Your task to perform on an android device: Is it going to rain today? Image 0: 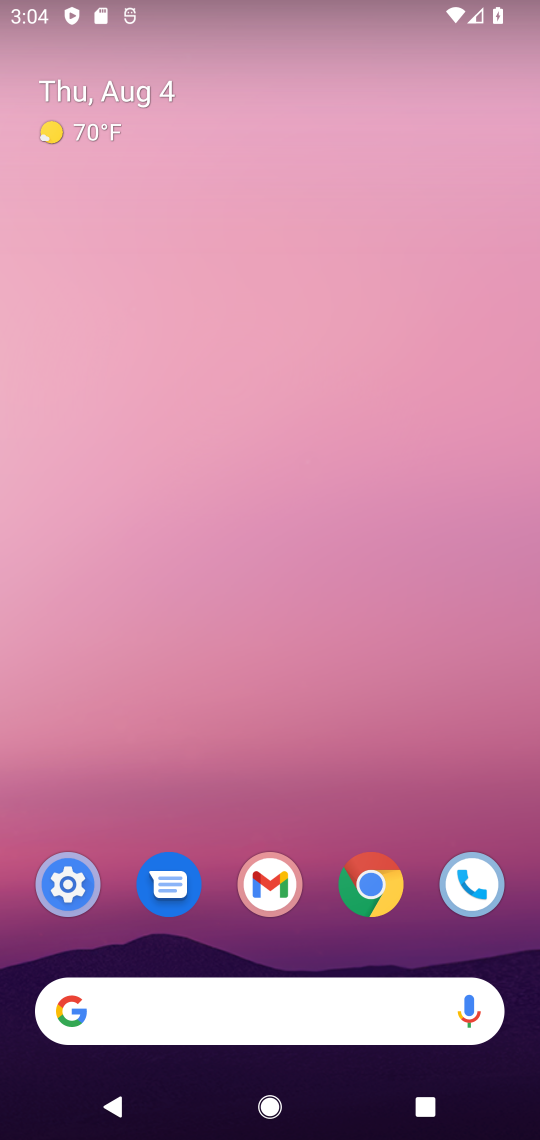
Step 0: drag from (242, 927) to (248, 172)
Your task to perform on an android device: Is it going to rain today? Image 1: 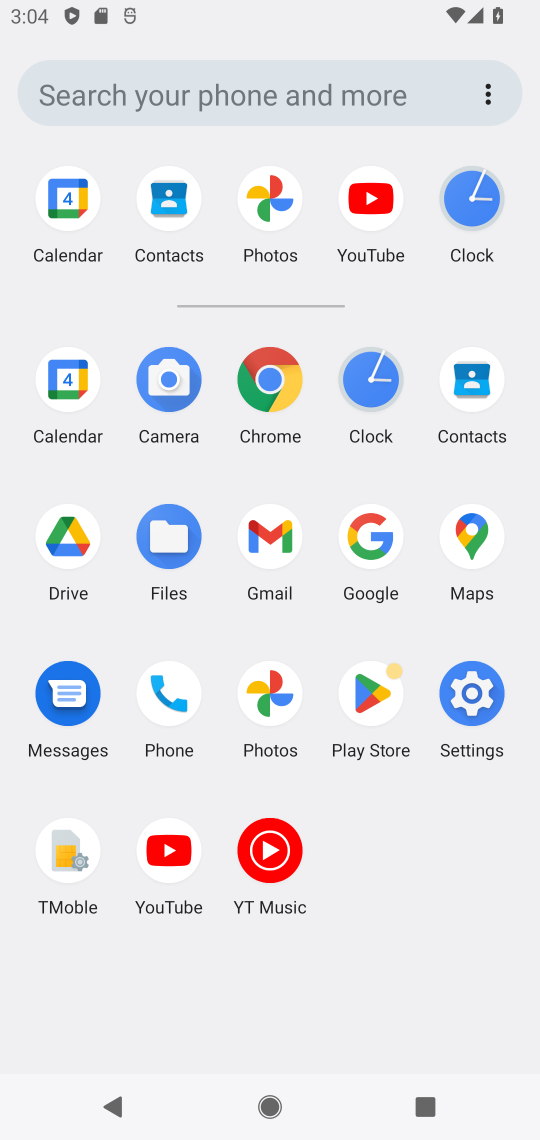
Step 1: click (262, 390)
Your task to perform on an android device: Is it going to rain today? Image 2: 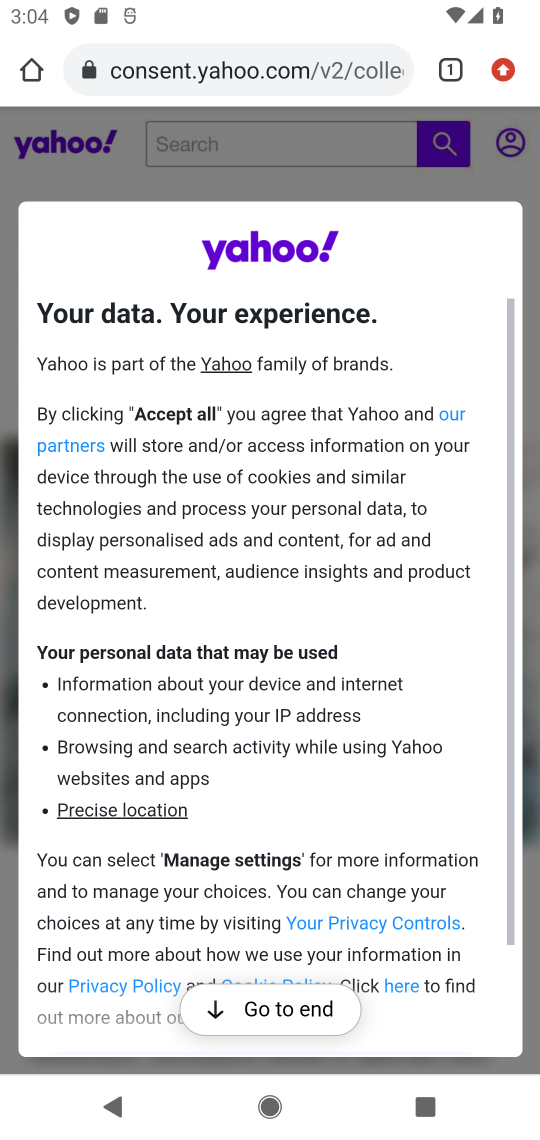
Step 2: click (519, 63)
Your task to perform on an android device: Is it going to rain today? Image 3: 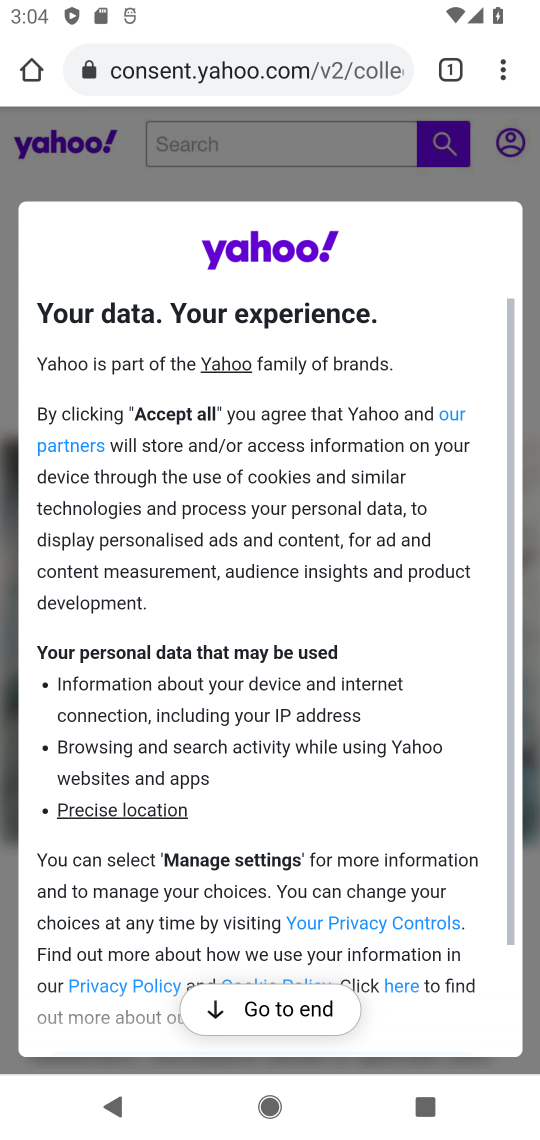
Step 3: click (497, 58)
Your task to perform on an android device: Is it going to rain today? Image 4: 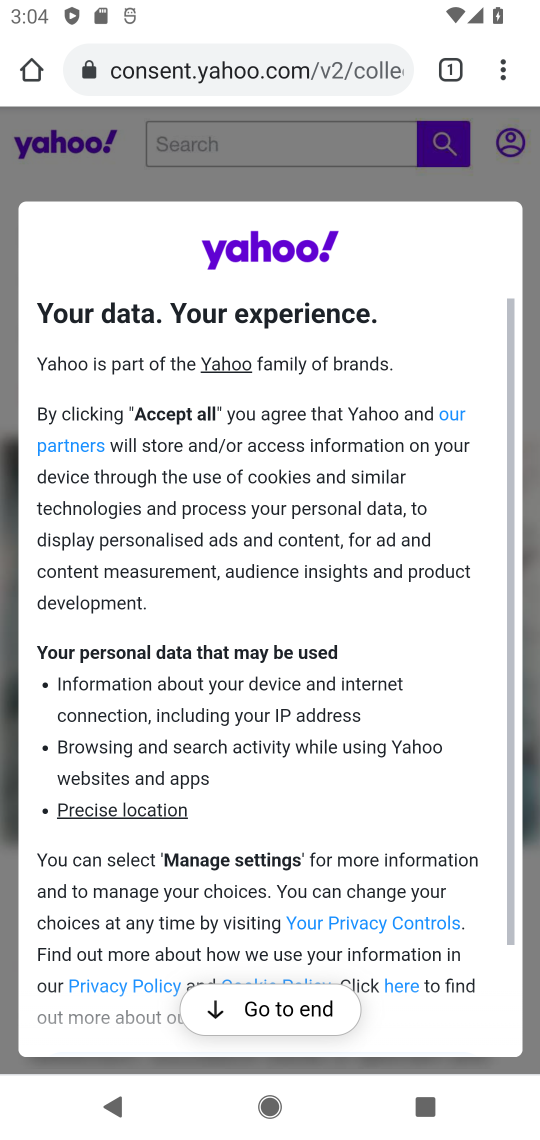
Step 4: click (497, 58)
Your task to perform on an android device: Is it going to rain today? Image 5: 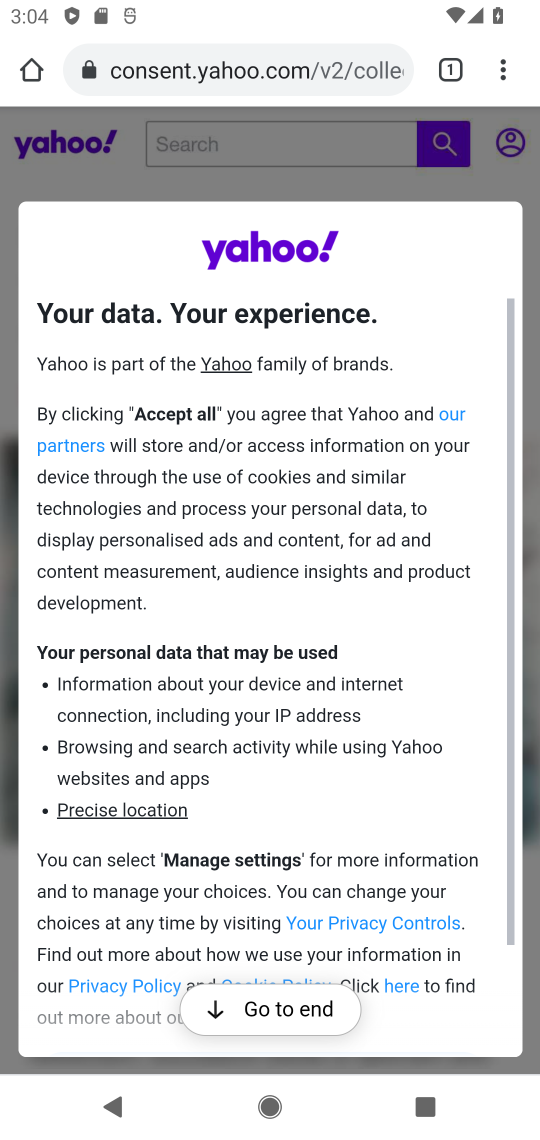
Step 5: click (494, 69)
Your task to perform on an android device: Is it going to rain today? Image 6: 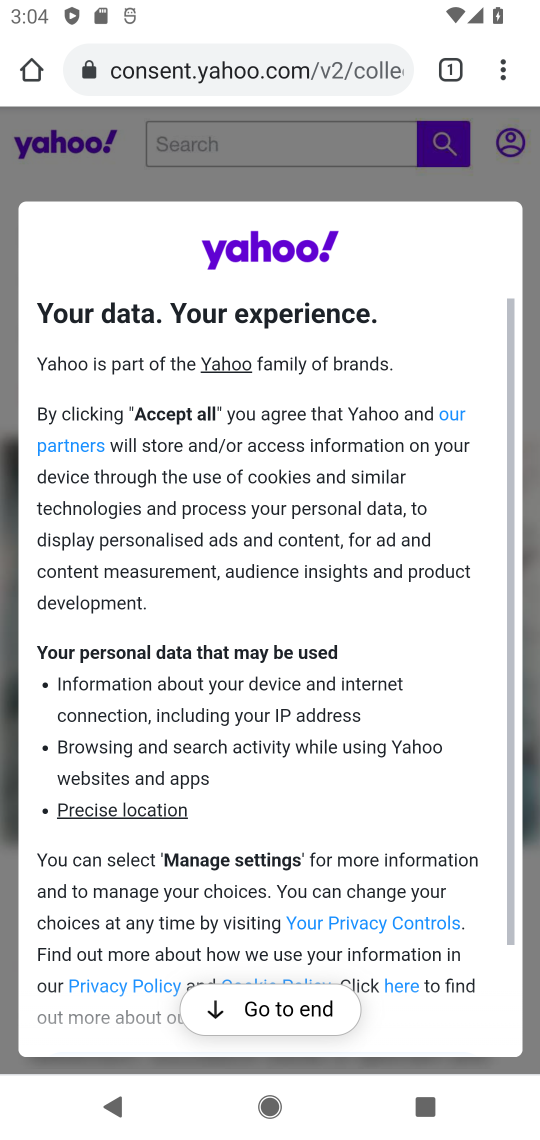
Step 6: click (502, 72)
Your task to perform on an android device: Is it going to rain today? Image 7: 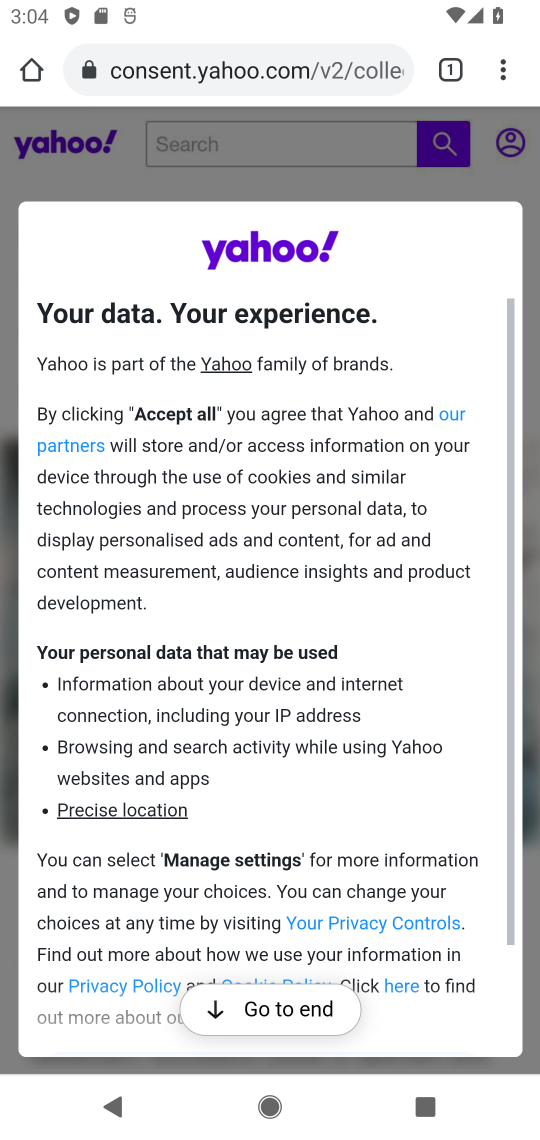
Step 7: click (502, 72)
Your task to perform on an android device: Is it going to rain today? Image 8: 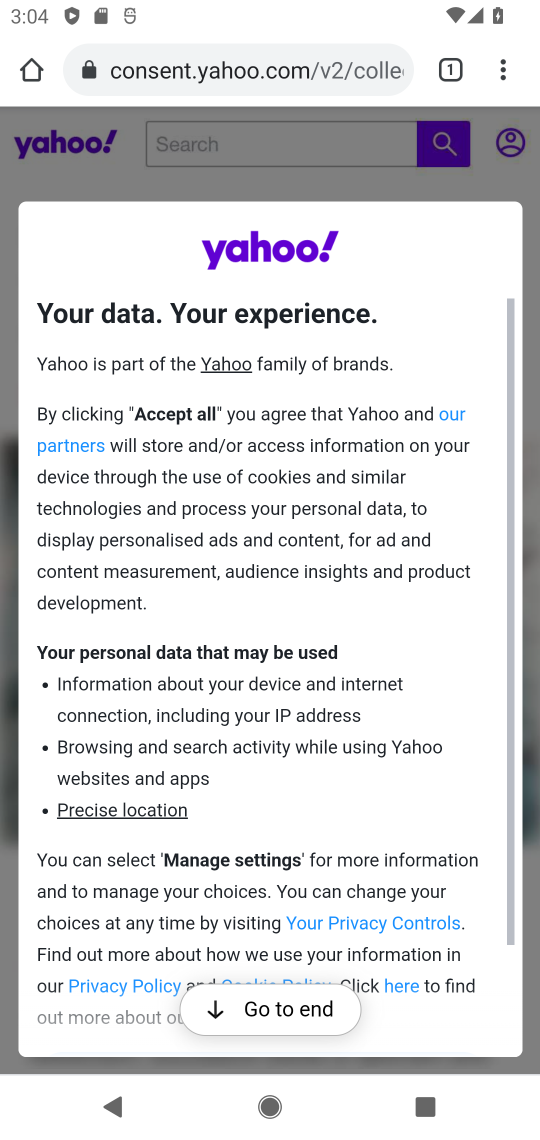
Step 8: click (510, 53)
Your task to perform on an android device: Is it going to rain today? Image 9: 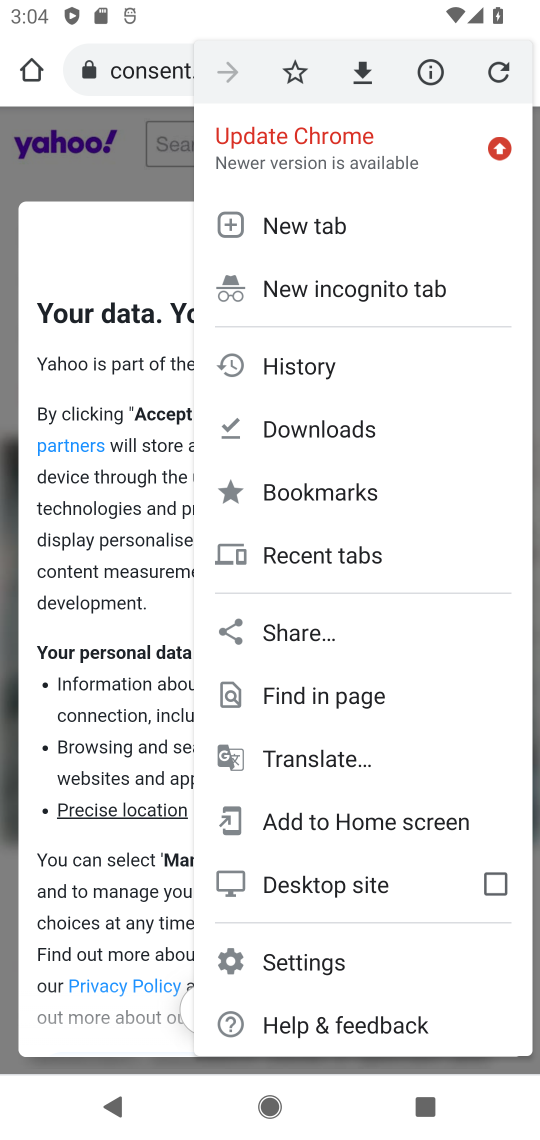
Step 9: click (322, 230)
Your task to perform on an android device: Is it going to rain today? Image 10: 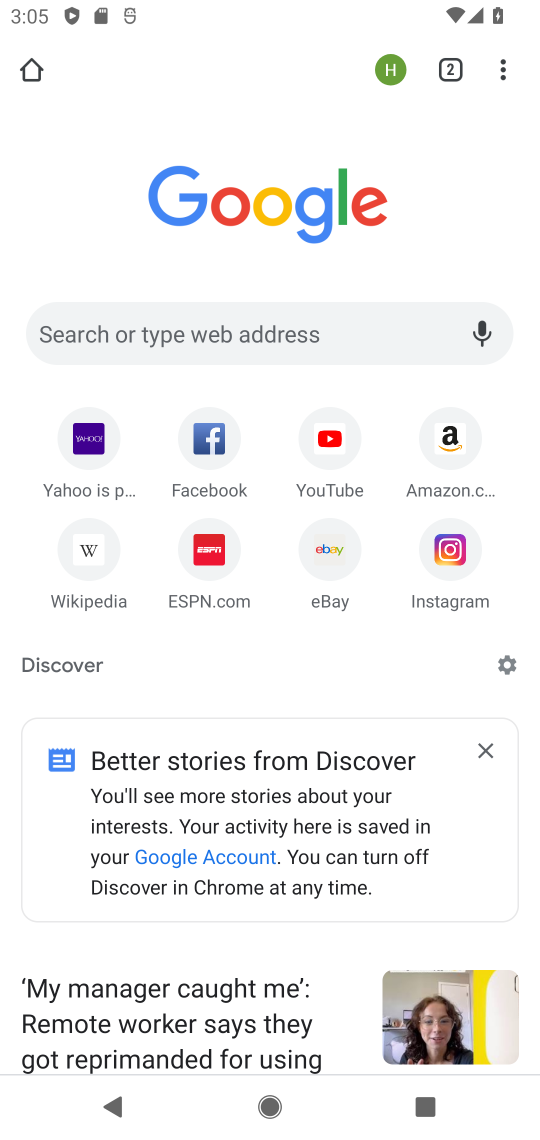
Step 10: click (303, 318)
Your task to perform on an android device: Is it going to rain today? Image 11: 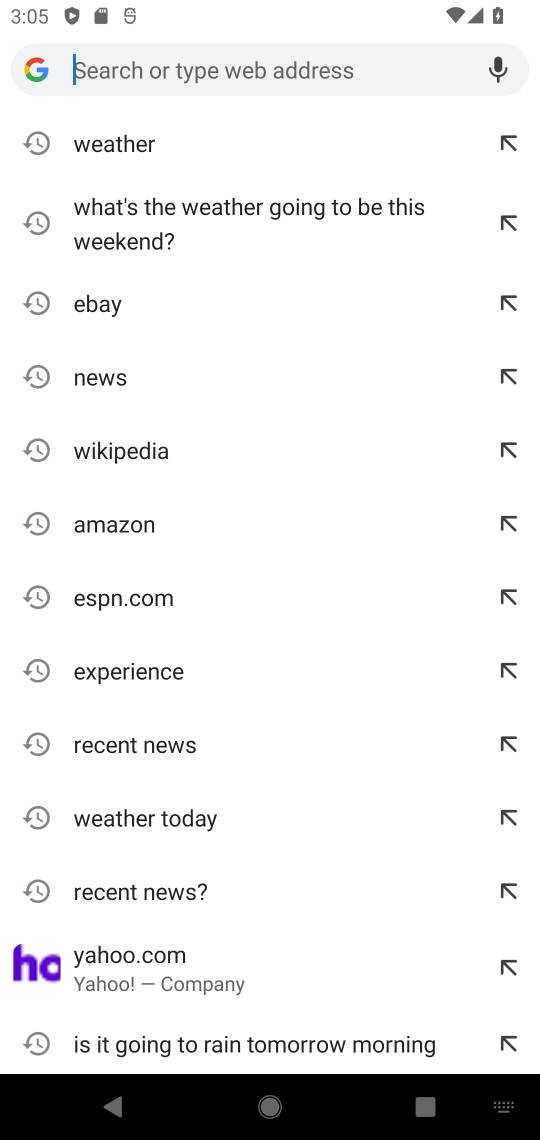
Step 11: type "Is it going to rain today? "
Your task to perform on an android device: Is it going to rain today? Image 12: 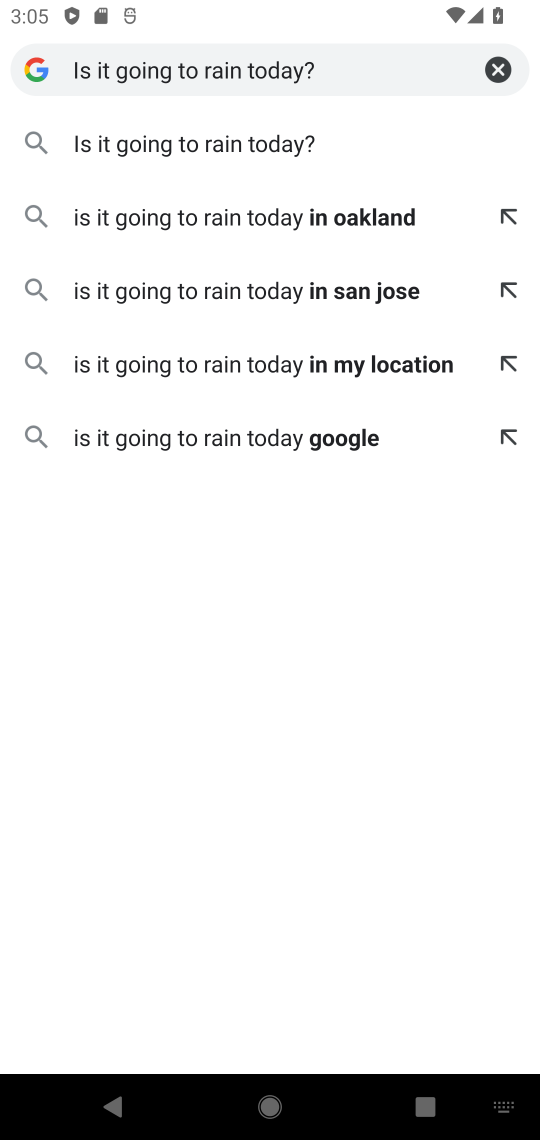
Step 12: click (188, 142)
Your task to perform on an android device: Is it going to rain today? Image 13: 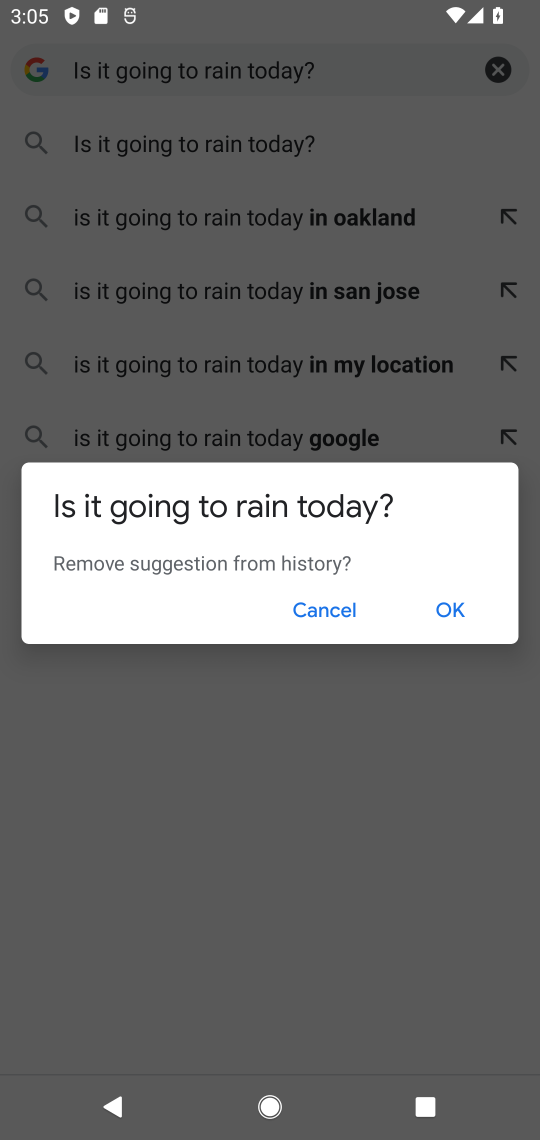
Step 13: click (415, 608)
Your task to perform on an android device: Is it going to rain today? Image 14: 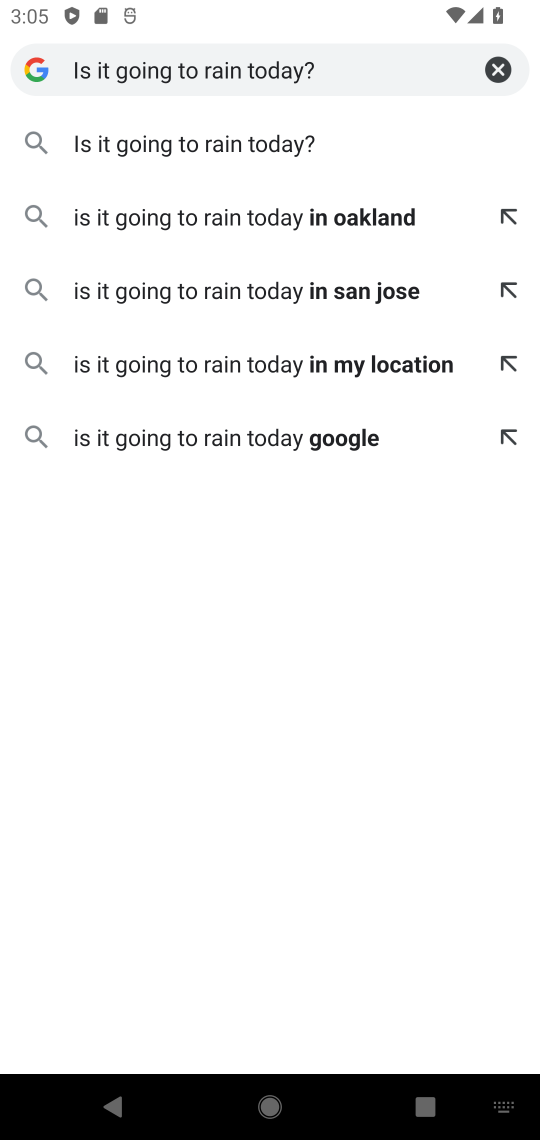
Step 14: click (197, 134)
Your task to perform on an android device: Is it going to rain today? Image 15: 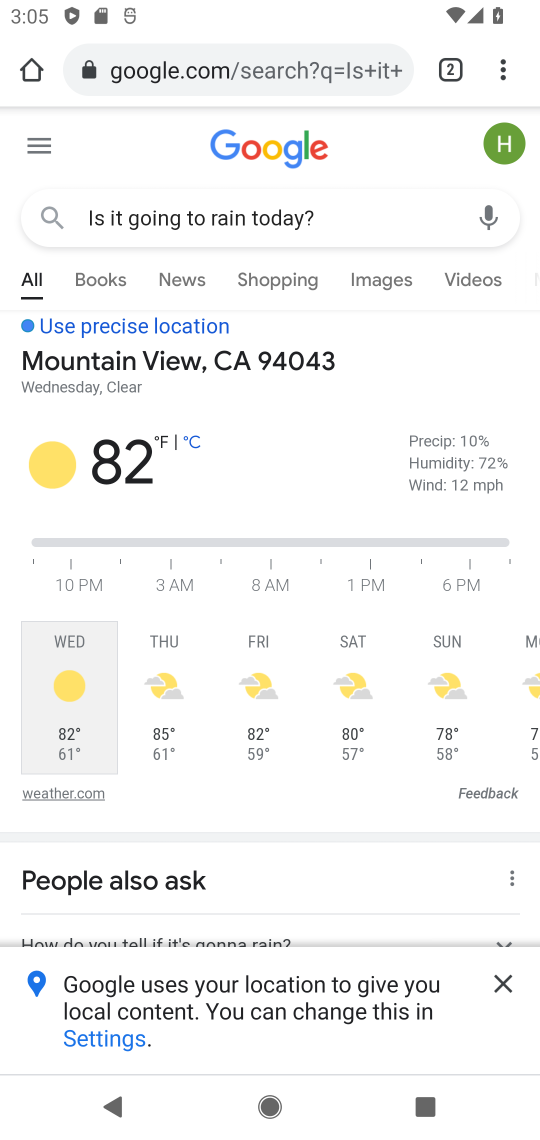
Step 15: task complete